Your task to perform on an android device: change the clock display to analog Image 0: 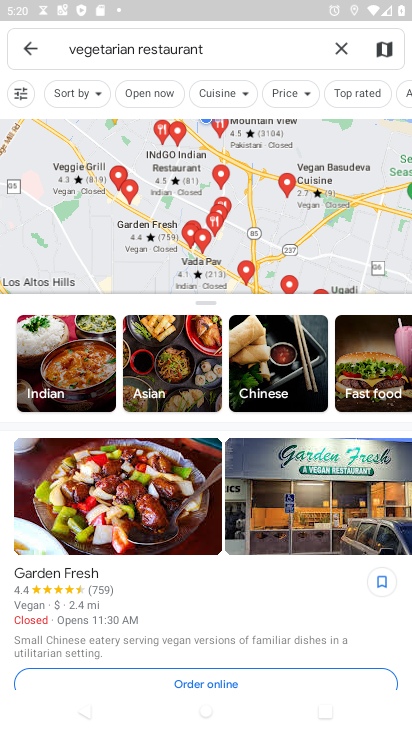
Step 0: press home button
Your task to perform on an android device: change the clock display to analog Image 1: 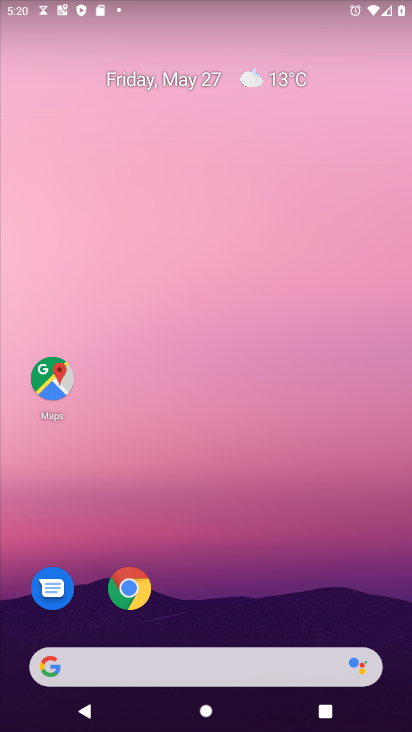
Step 1: drag from (234, 559) to (315, 118)
Your task to perform on an android device: change the clock display to analog Image 2: 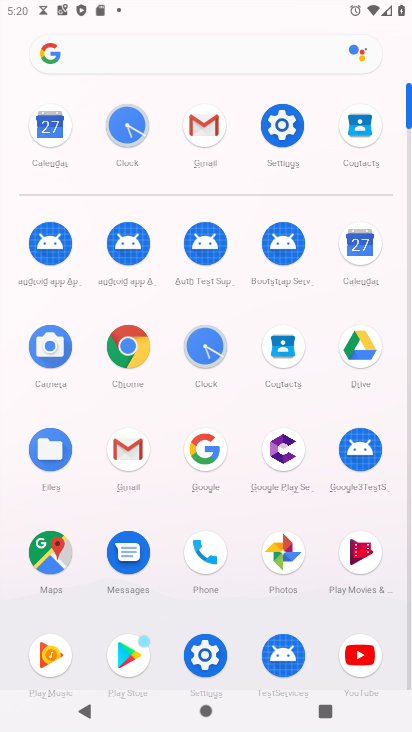
Step 2: click (212, 345)
Your task to perform on an android device: change the clock display to analog Image 3: 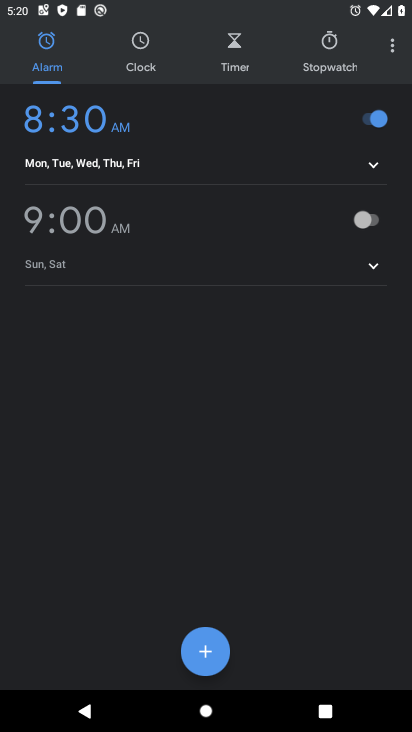
Step 3: click (390, 41)
Your task to perform on an android device: change the clock display to analog Image 4: 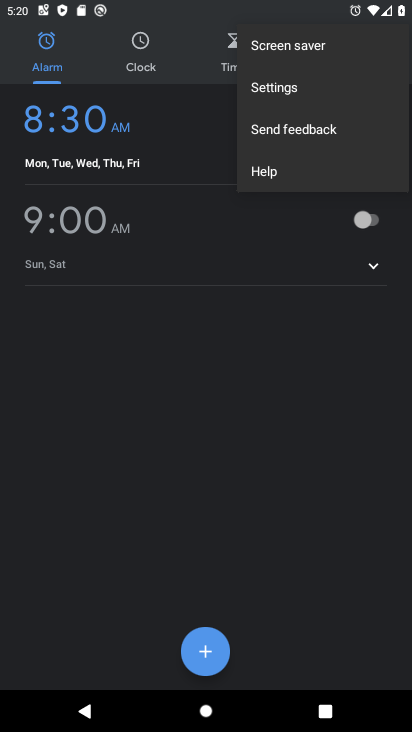
Step 4: click (264, 87)
Your task to perform on an android device: change the clock display to analog Image 5: 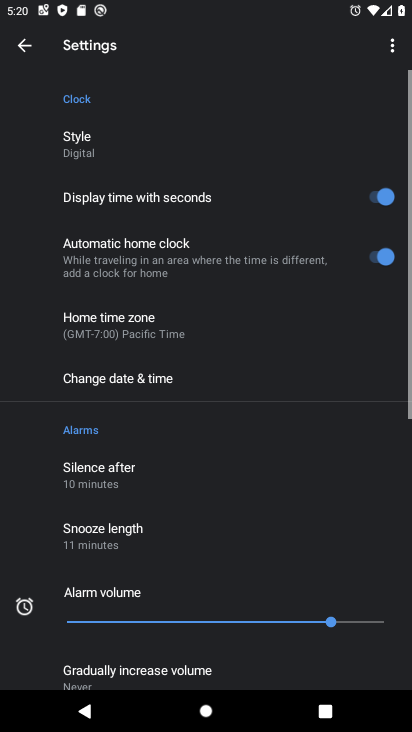
Step 5: click (124, 138)
Your task to perform on an android device: change the clock display to analog Image 6: 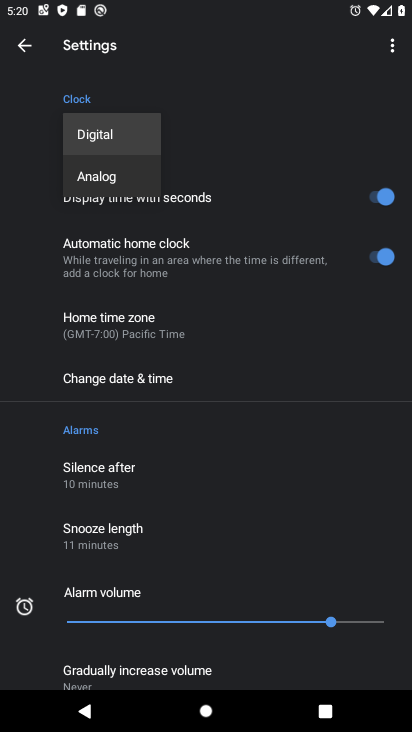
Step 6: click (98, 175)
Your task to perform on an android device: change the clock display to analog Image 7: 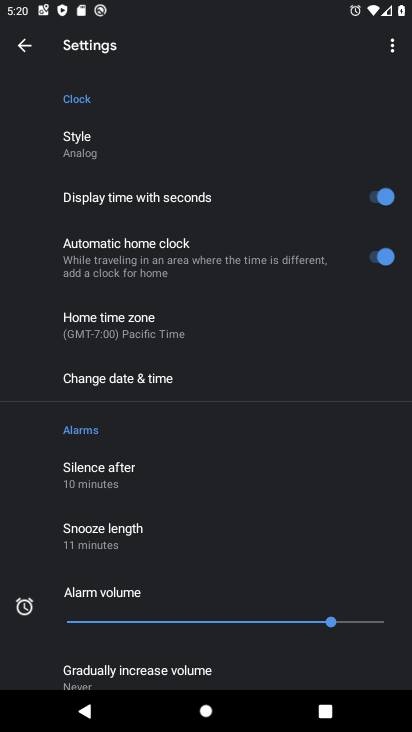
Step 7: task complete